Your task to perform on an android device: Is it going to rain tomorrow? Image 0: 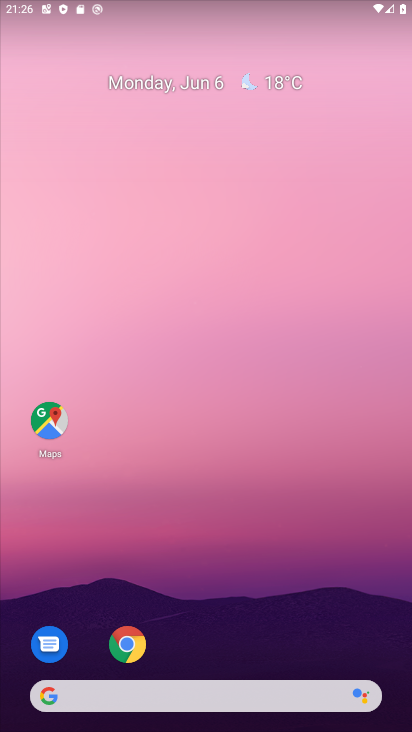
Step 0: drag from (338, 643) to (338, 158)
Your task to perform on an android device: Is it going to rain tomorrow? Image 1: 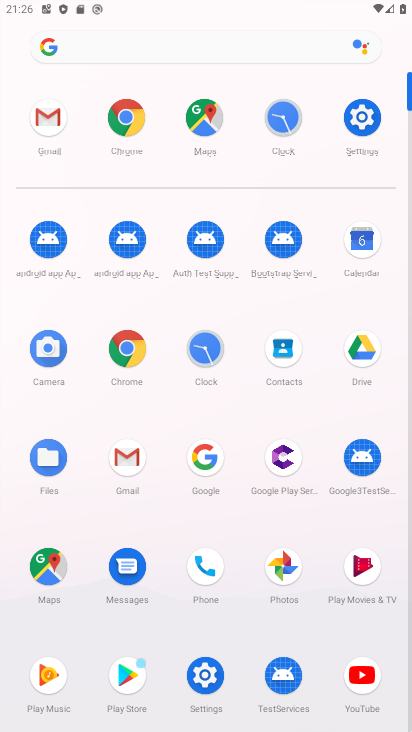
Step 1: click (123, 345)
Your task to perform on an android device: Is it going to rain tomorrow? Image 2: 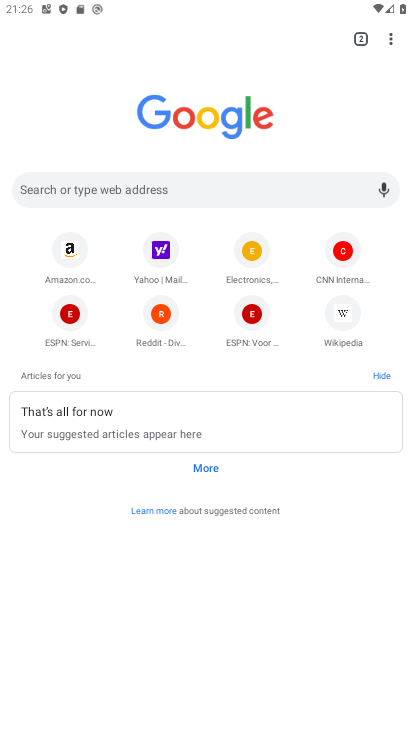
Step 2: click (184, 186)
Your task to perform on an android device: Is it going to rain tomorrow? Image 3: 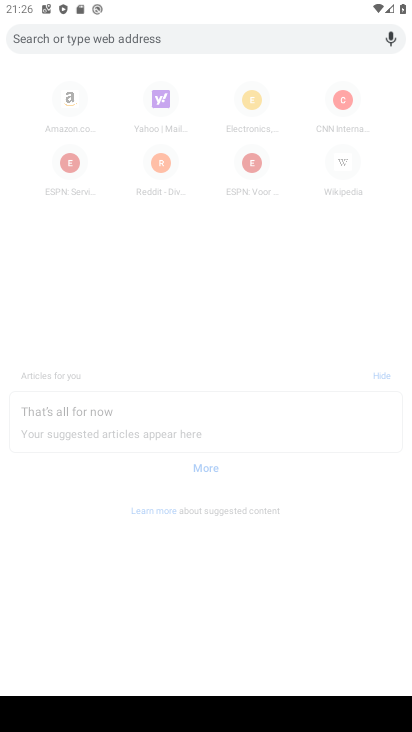
Step 3: type "is it going to rain tomorrow"
Your task to perform on an android device: Is it going to rain tomorrow? Image 4: 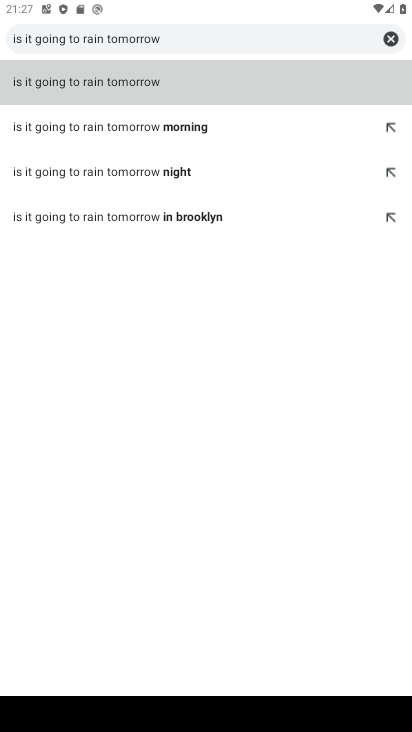
Step 4: click (204, 83)
Your task to perform on an android device: Is it going to rain tomorrow? Image 5: 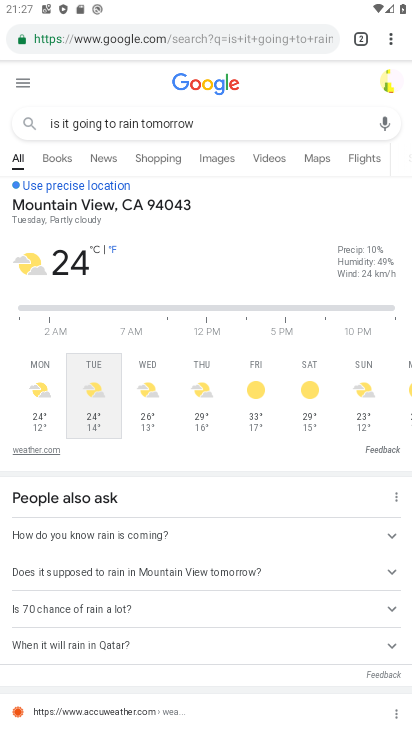
Step 5: task complete